Your task to perform on an android device: add a label to a message in the gmail app Image 0: 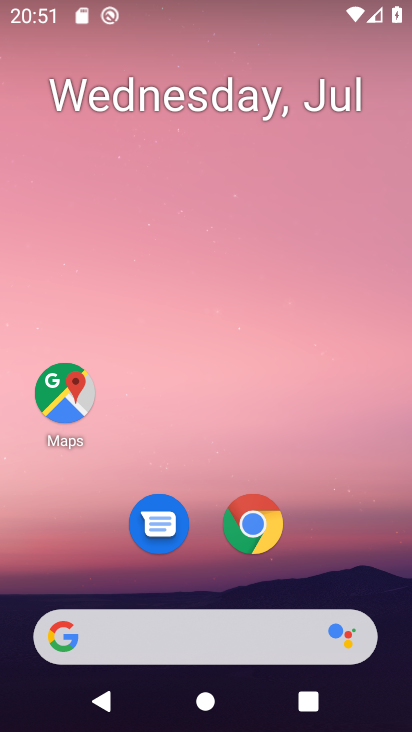
Step 0: press home button
Your task to perform on an android device: add a label to a message in the gmail app Image 1: 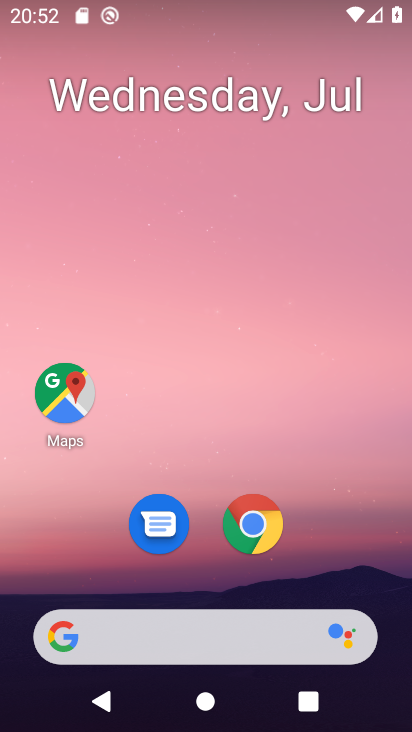
Step 1: drag from (174, 640) to (323, 117)
Your task to perform on an android device: add a label to a message in the gmail app Image 2: 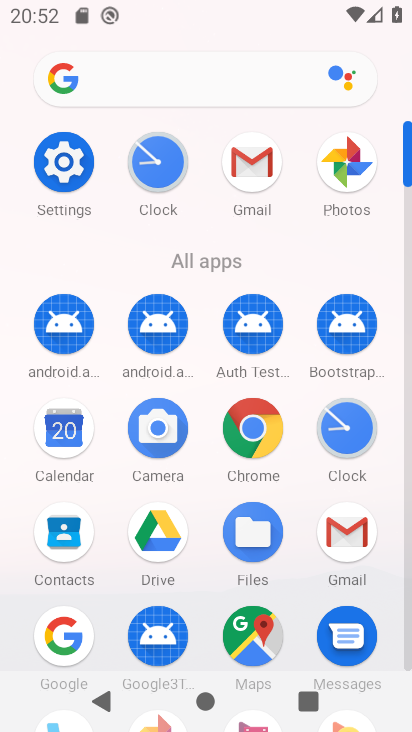
Step 2: click (262, 174)
Your task to perform on an android device: add a label to a message in the gmail app Image 3: 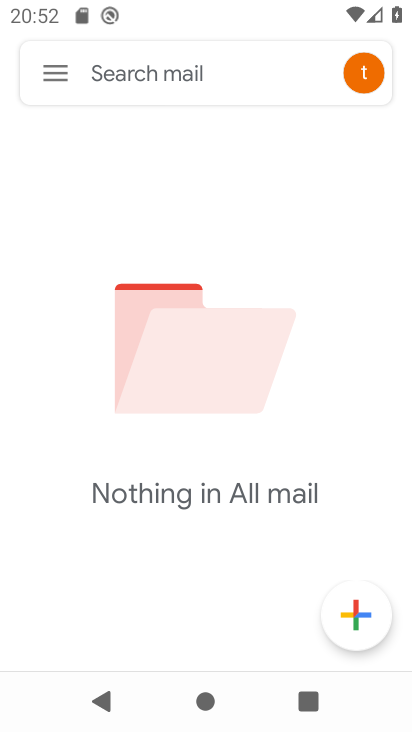
Step 3: task complete